Your task to perform on an android device: turn on priority inbox in the gmail app Image 0: 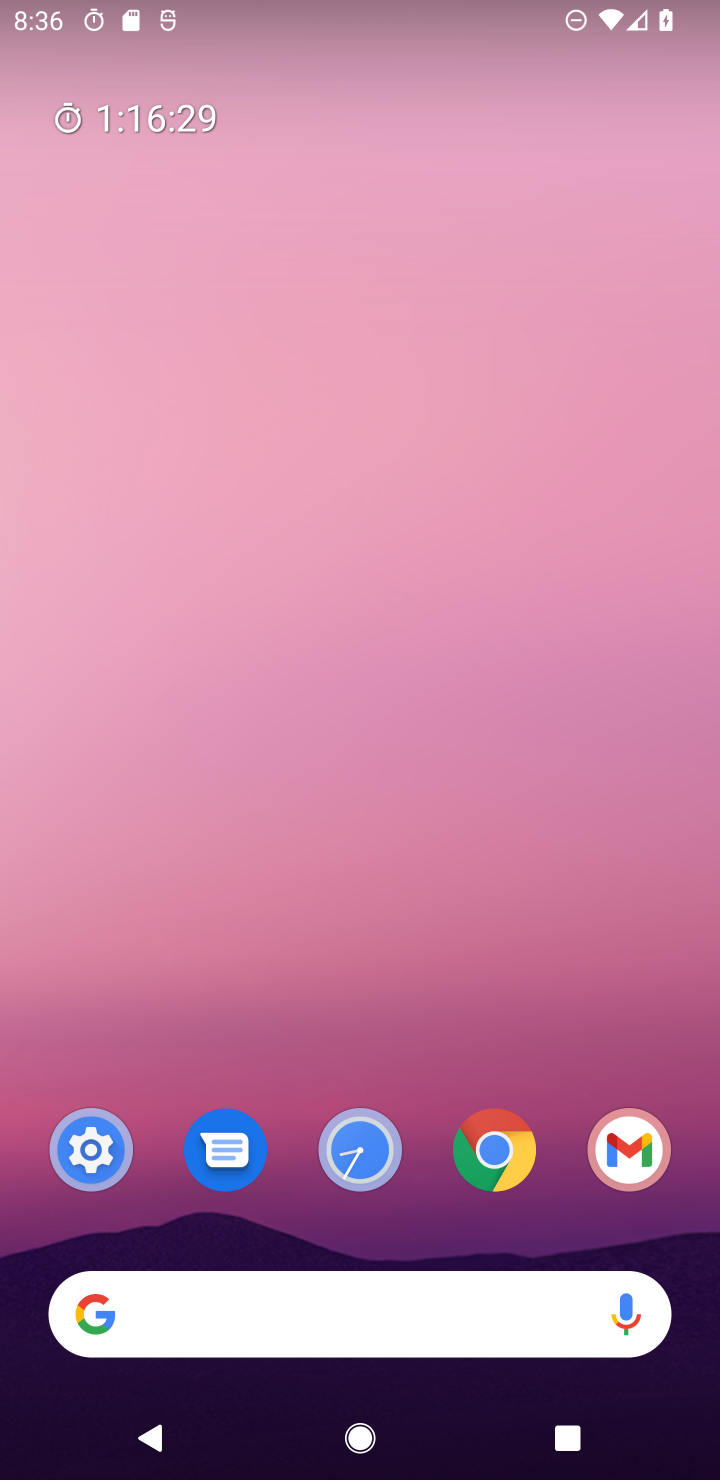
Step 0: drag from (394, 1285) to (497, 13)
Your task to perform on an android device: turn on priority inbox in the gmail app Image 1: 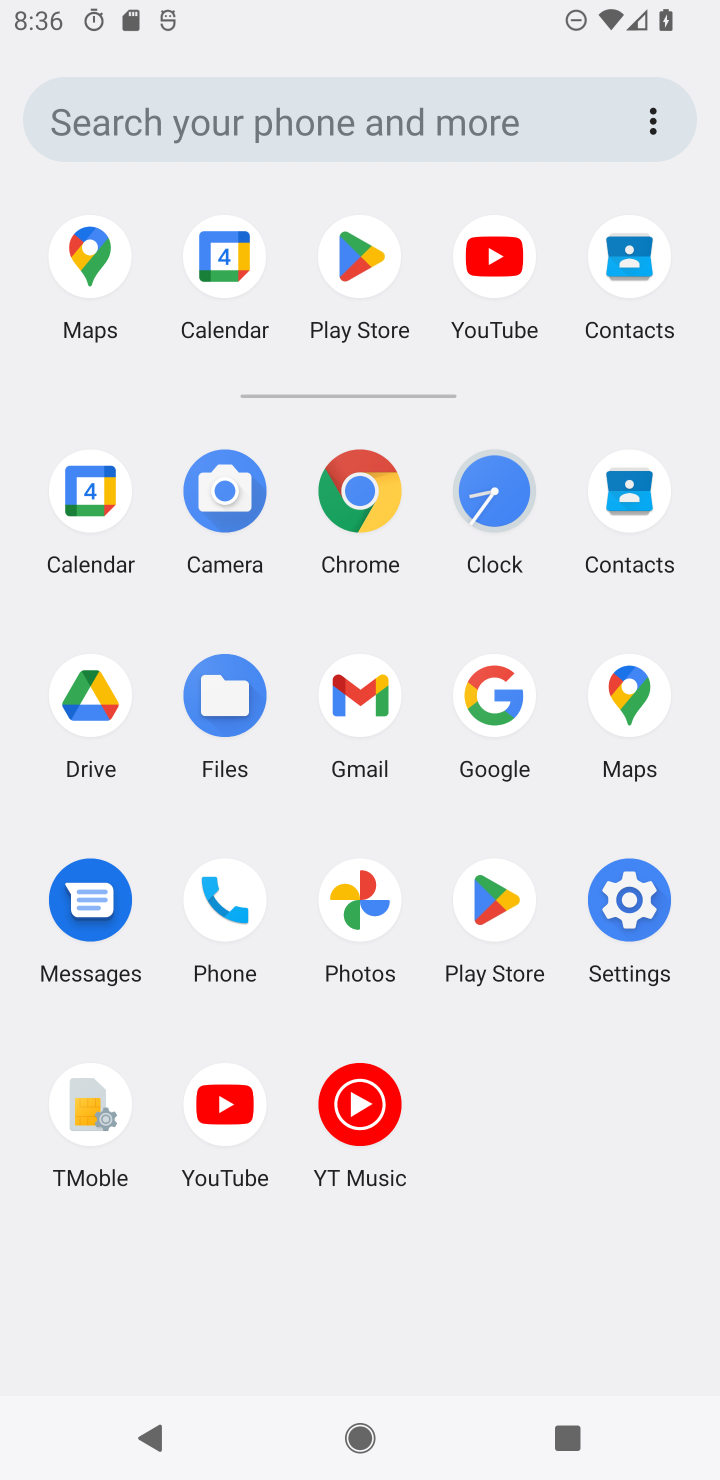
Step 1: click (348, 684)
Your task to perform on an android device: turn on priority inbox in the gmail app Image 2: 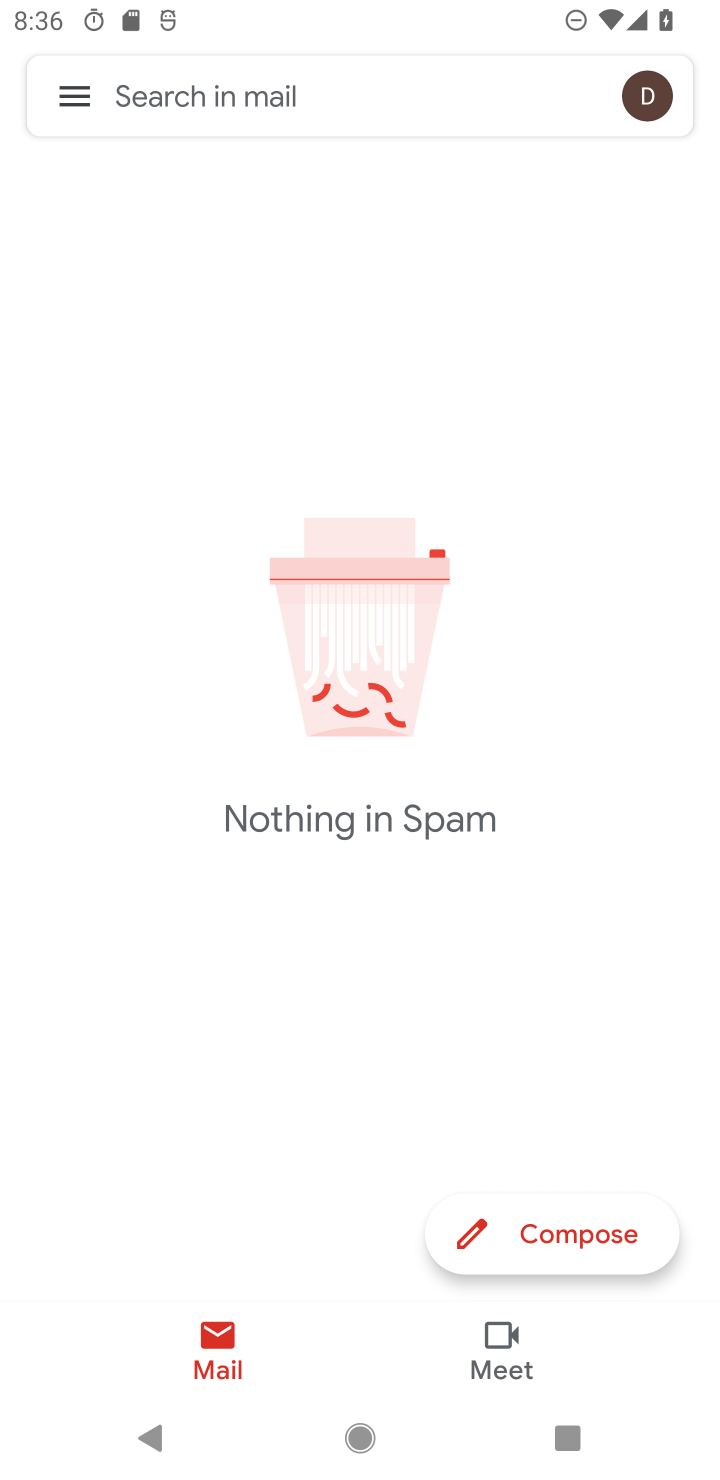
Step 2: click (58, 86)
Your task to perform on an android device: turn on priority inbox in the gmail app Image 3: 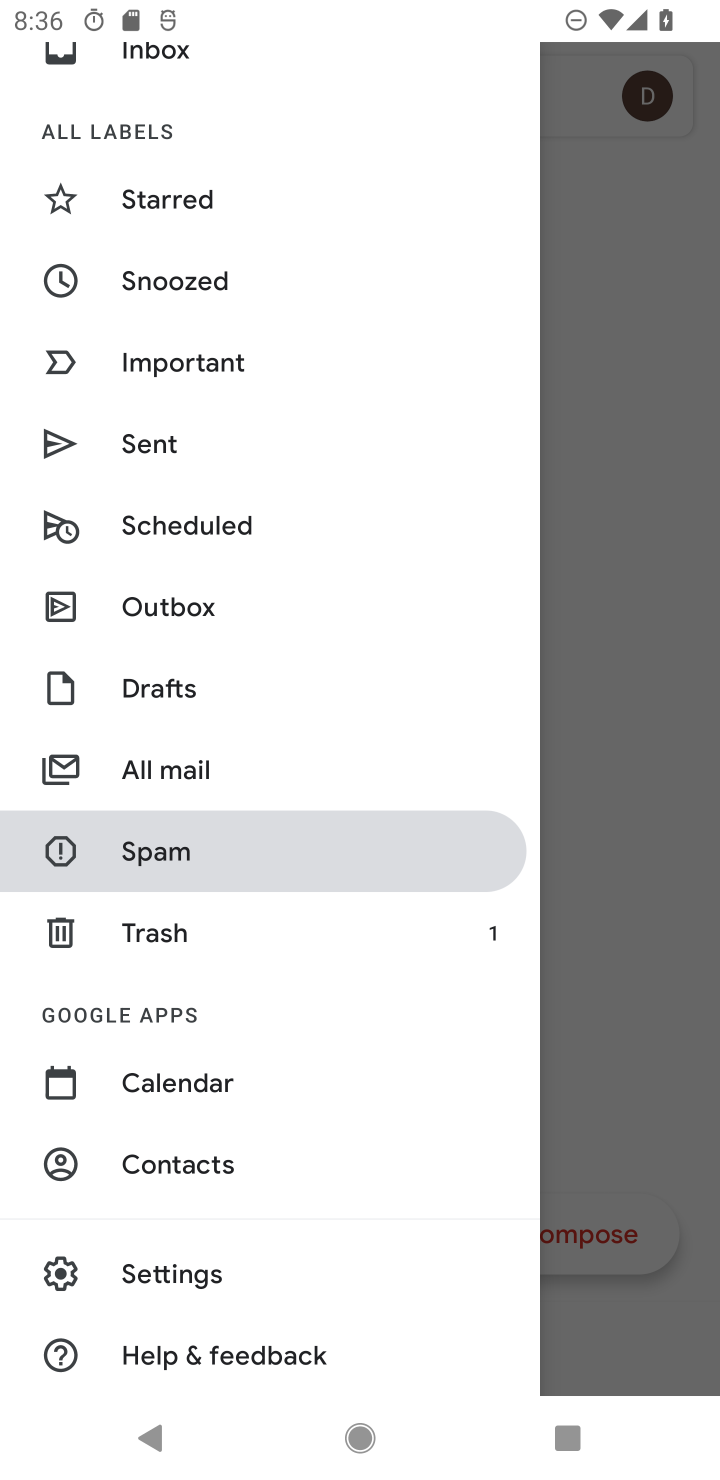
Step 3: click (227, 1258)
Your task to perform on an android device: turn on priority inbox in the gmail app Image 4: 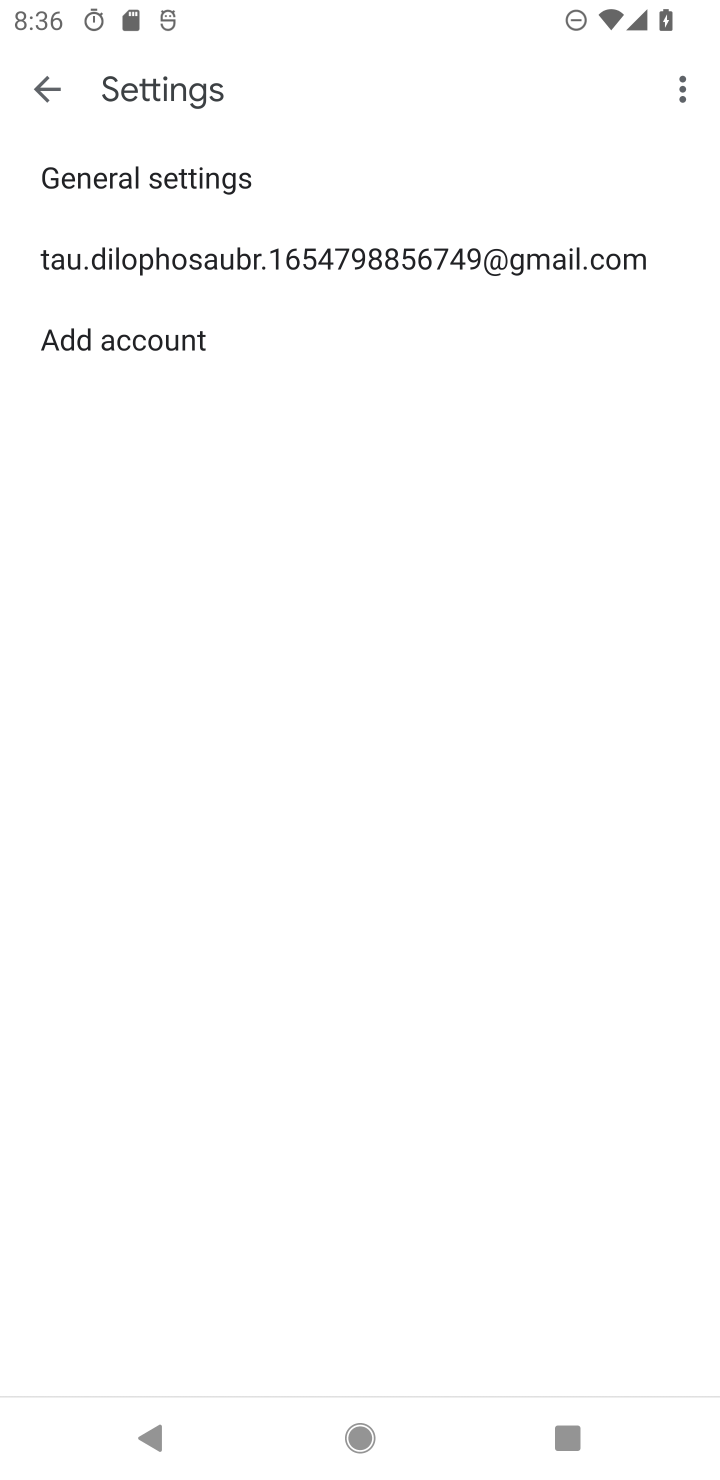
Step 4: click (204, 244)
Your task to perform on an android device: turn on priority inbox in the gmail app Image 5: 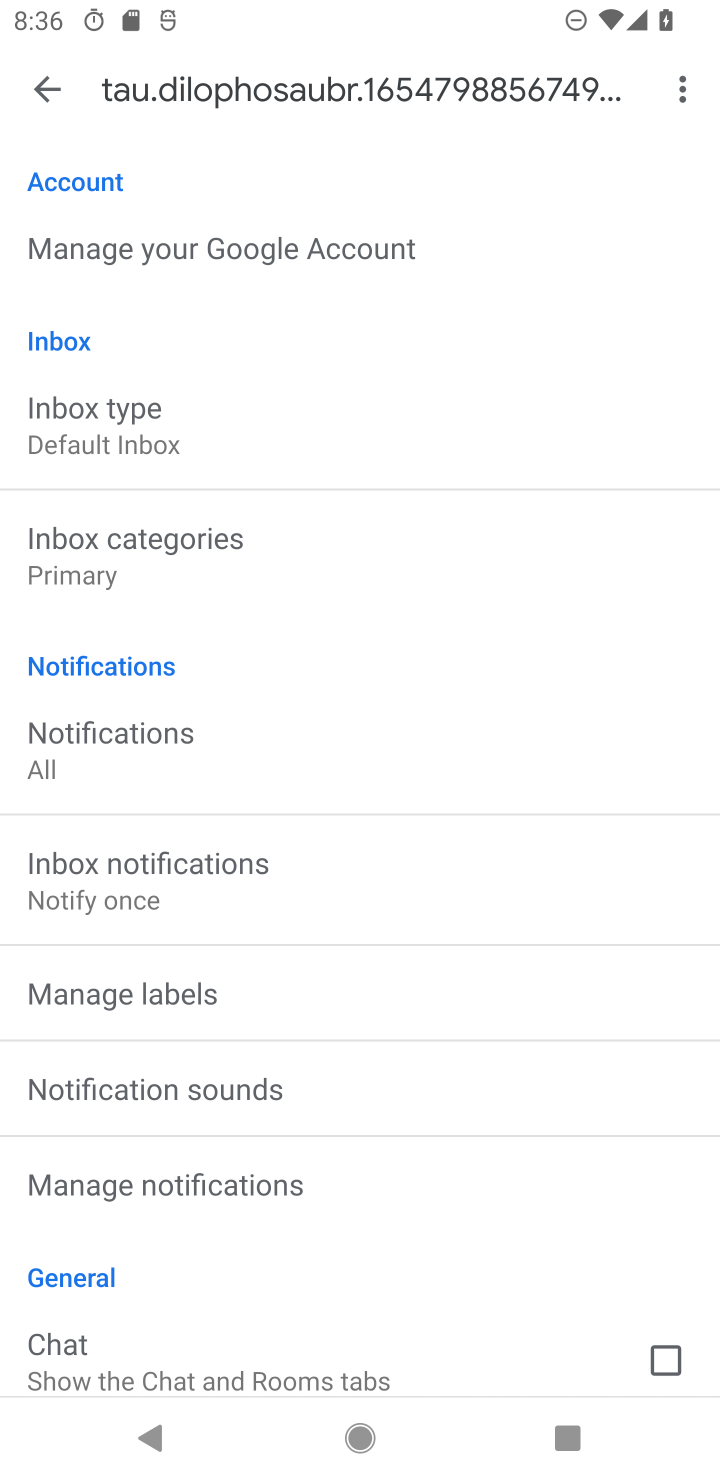
Step 5: click (147, 454)
Your task to perform on an android device: turn on priority inbox in the gmail app Image 6: 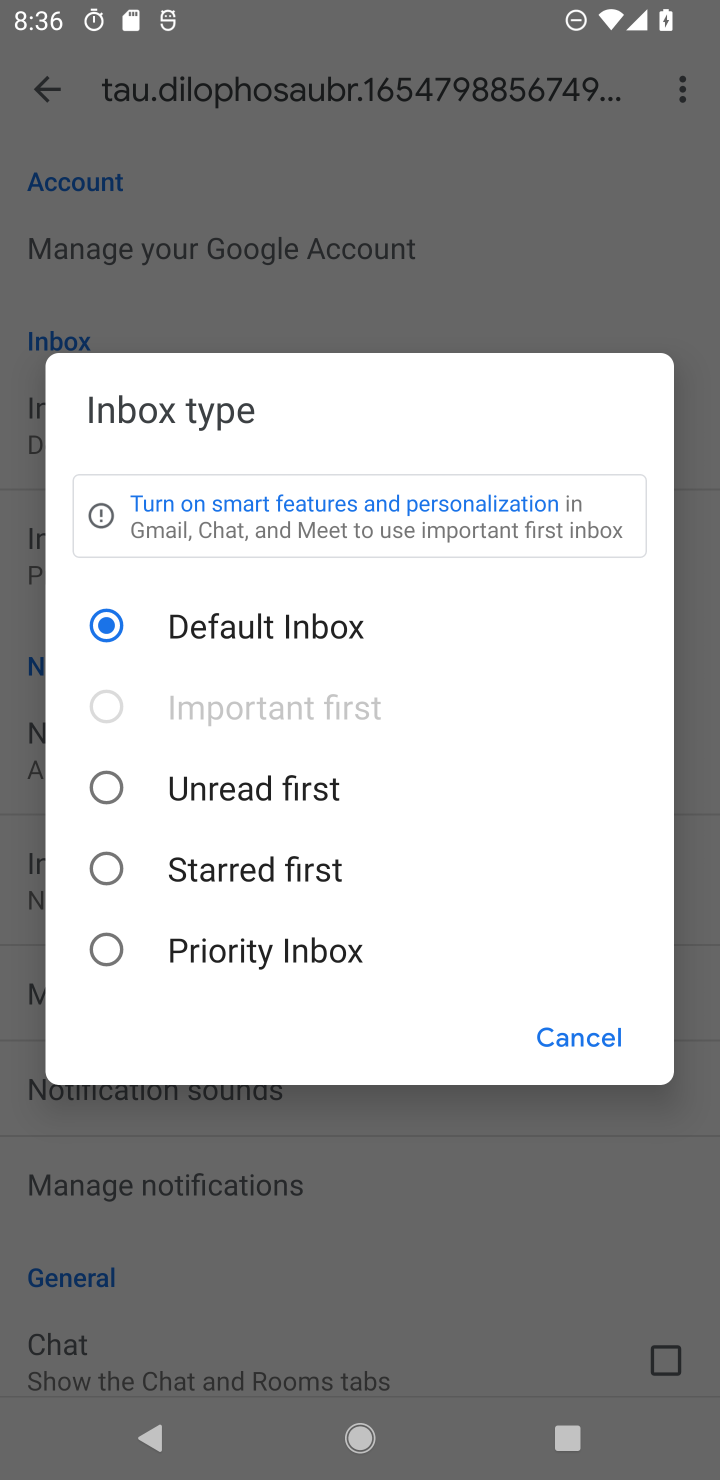
Step 6: click (103, 941)
Your task to perform on an android device: turn on priority inbox in the gmail app Image 7: 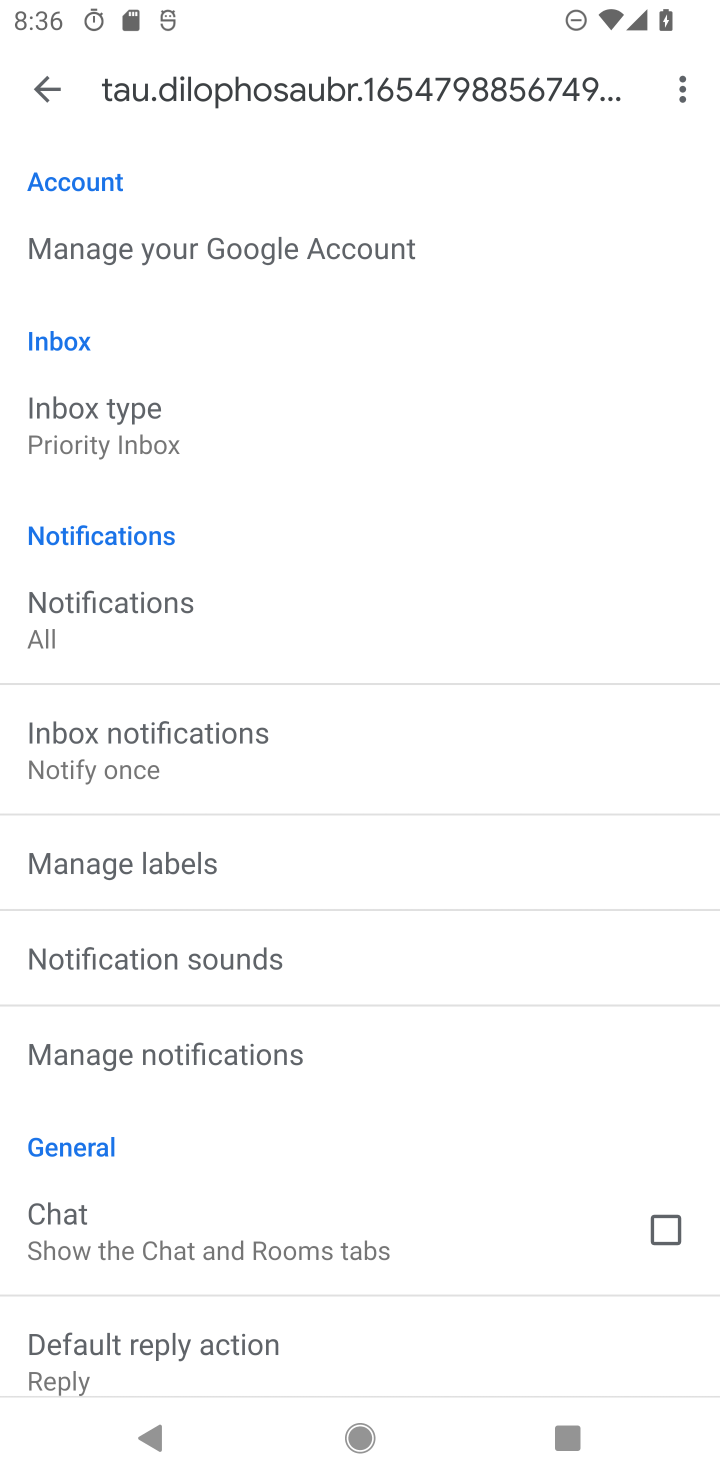
Step 7: task complete